Your task to perform on an android device: Go to eBay Image 0: 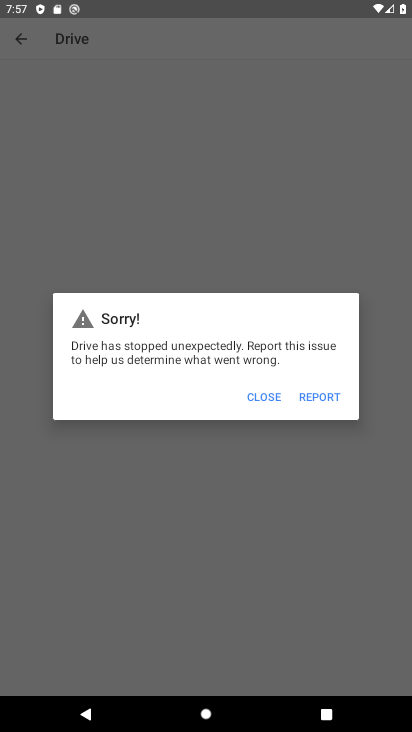
Step 0: press home button
Your task to perform on an android device: Go to eBay Image 1: 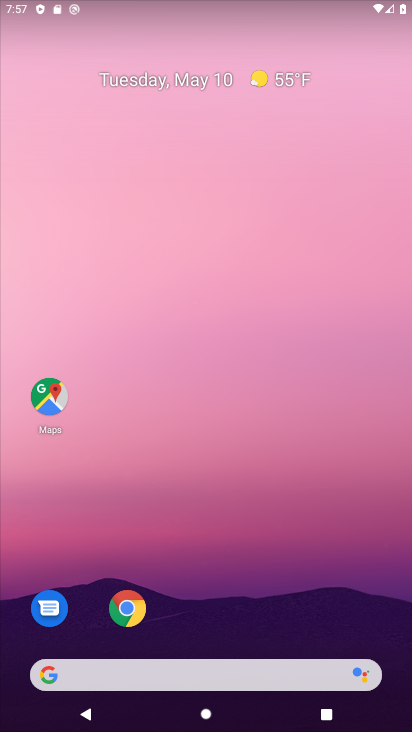
Step 1: drag from (245, 594) to (190, 41)
Your task to perform on an android device: Go to eBay Image 2: 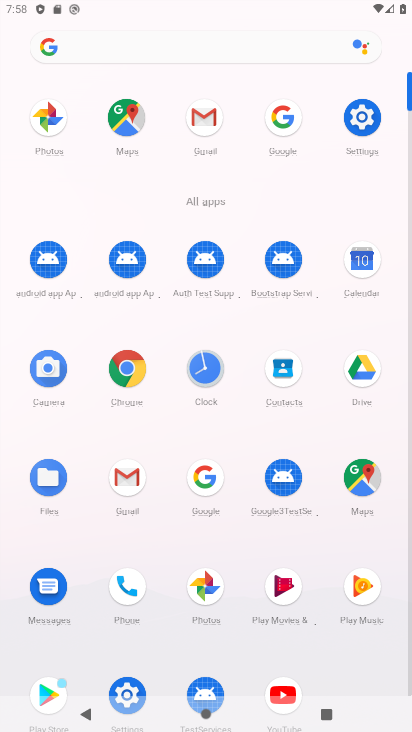
Step 2: click (281, 116)
Your task to perform on an android device: Go to eBay Image 3: 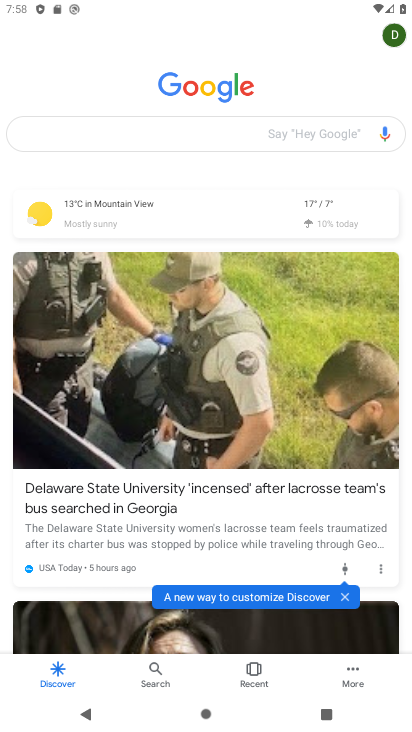
Step 3: click (243, 142)
Your task to perform on an android device: Go to eBay Image 4: 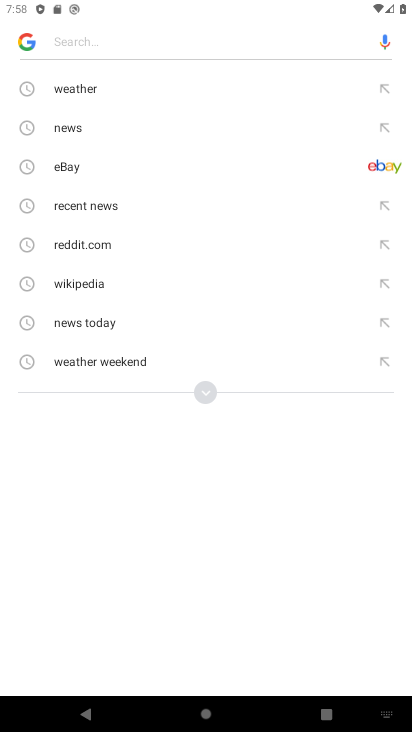
Step 4: type "eBay"
Your task to perform on an android device: Go to eBay Image 5: 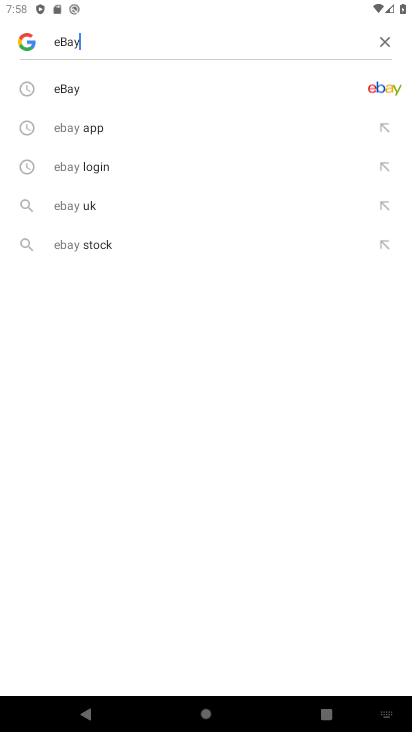
Step 5: type ""
Your task to perform on an android device: Go to eBay Image 6: 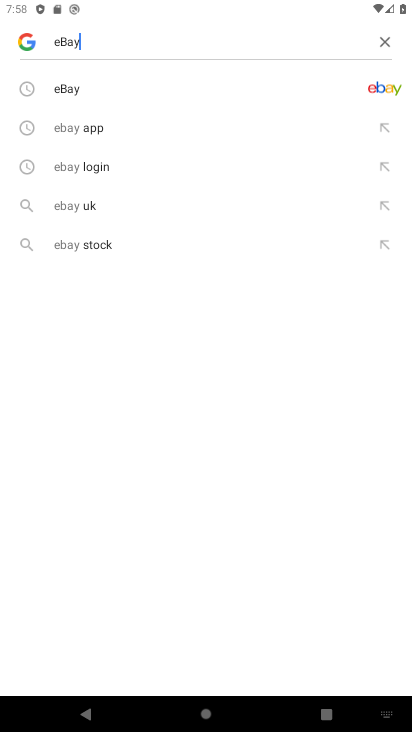
Step 6: click (87, 93)
Your task to perform on an android device: Go to eBay Image 7: 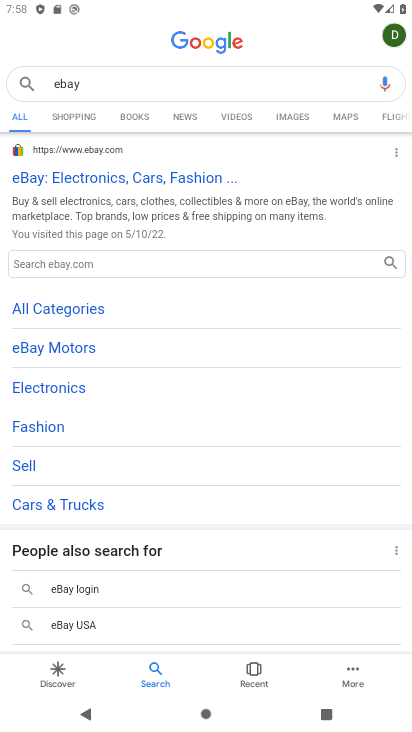
Step 7: click (84, 177)
Your task to perform on an android device: Go to eBay Image 8: 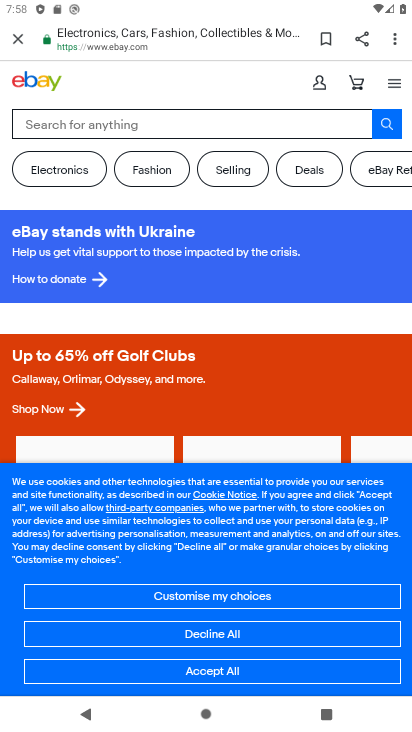
Step 8: task complete